Your task to perform on an android device: delete a single message in the gmail app Image 0: 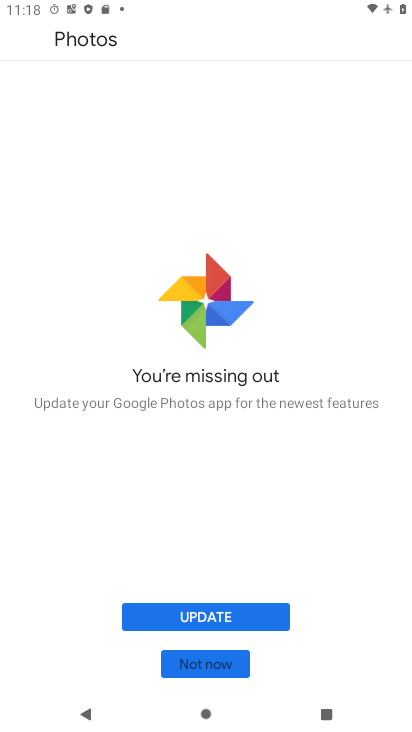
Step 0: press home button
Your task to perform on an android device: delete a single message in the gmail app Image 1: 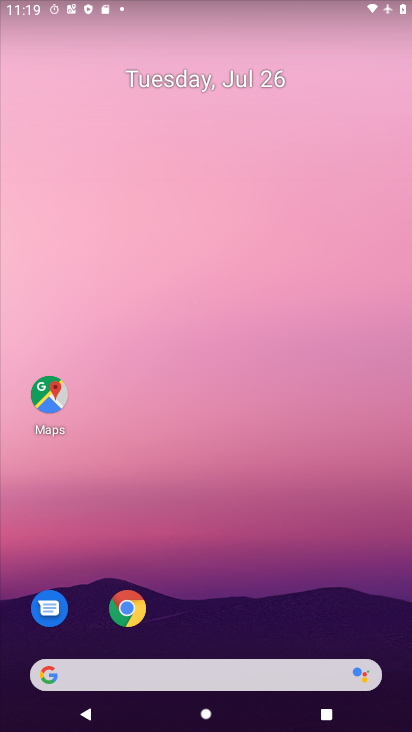
Step 1: drag from (227, 607) to (260, 83)
Your task to perform on an android device: delete a single message in the gmail app Image 2: 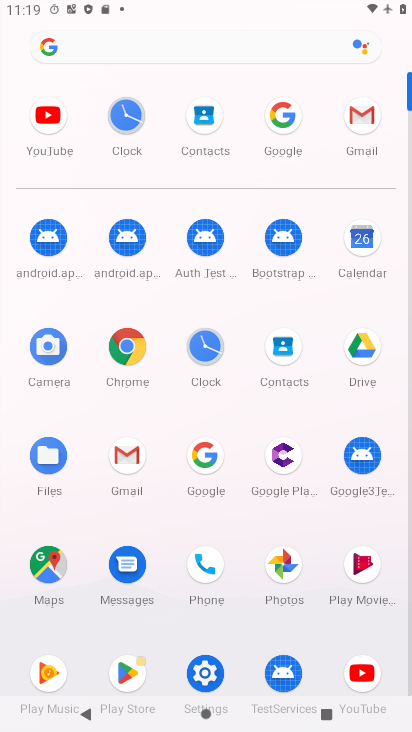
Step 2: click (347, 116)
Your task to perform on an android device: delete a single message in the gmail app Image 3: 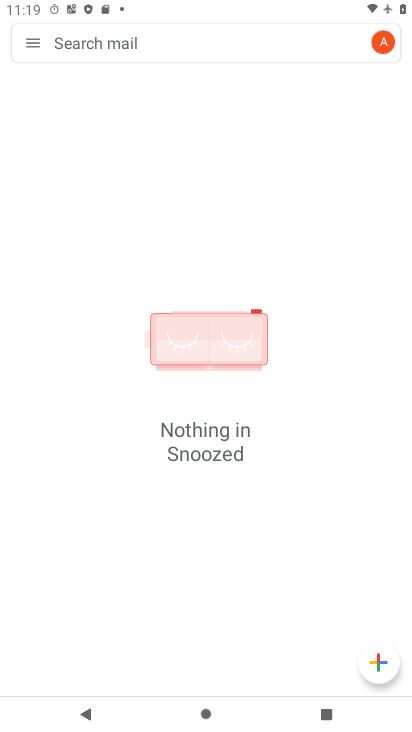
Step 3: click (25, 40)
Your task to perform on an android device: delete a single message in the gmail app Image 4: 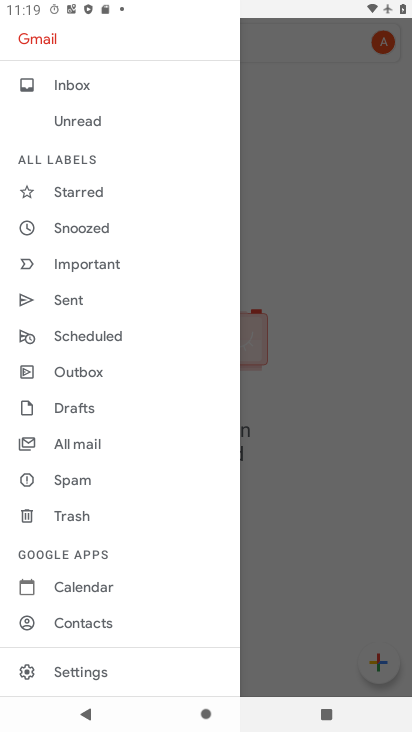
Step 4: click (70, 452)
Your task to perform on an android device: delete a single message in the gmail app Image 5: 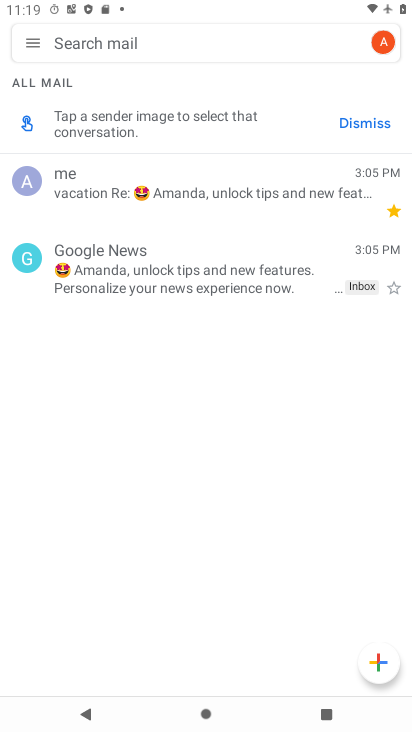
Step 5: click (206, 265)
Your task to perform on an android device: delete a single message in the gmail app Image 6: 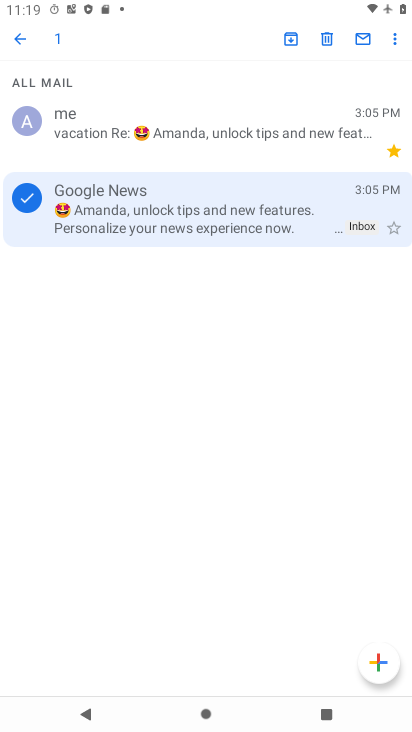
Step 6: click (323, 42)
Your task to perform on an android device: delete a single message in the gmail app Image 7: 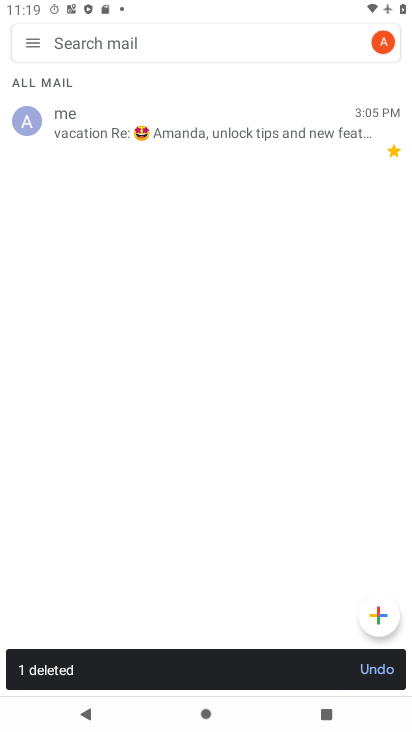
Step 7: task complete